Your task to perform on an android device: Go to internet settings Image 0: 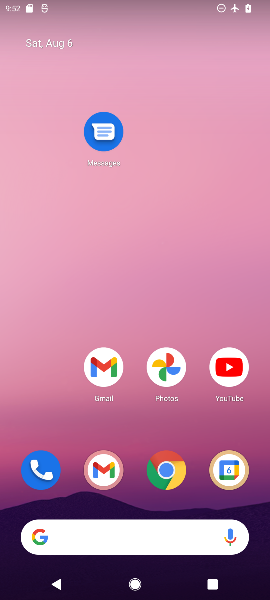
Step 0: drag from (162, 538) to (148, 42)
Your task to perform on an android device: Go to internet settings Image 1: 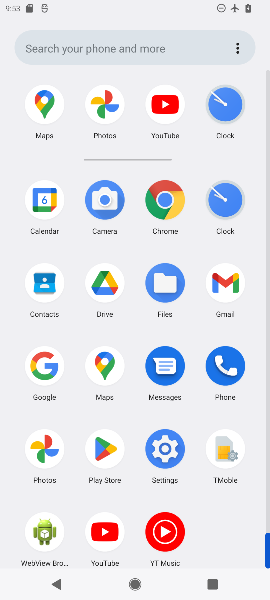
Step 1: click (171, 454)
Your task to perform on an android device: Go to internet settings Image 2: 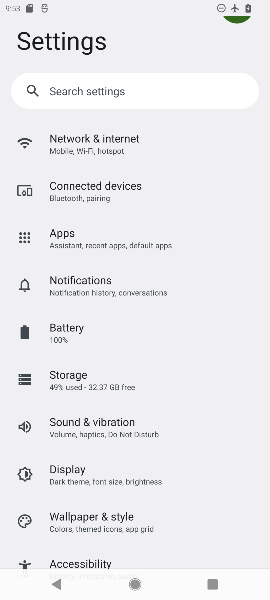
Step 2: click (111, 142)
Your task to perform on an android device: Go to internet settings Image 3: 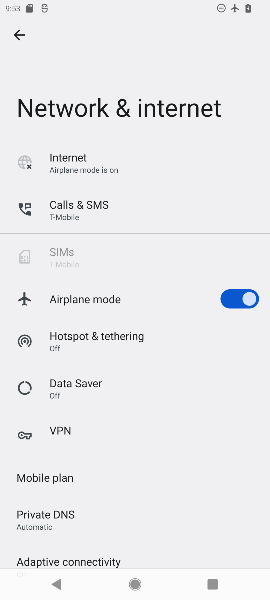
Step 3: task complete